Your task to perform on an android device: toggle javascript in the chrome app Image 0: 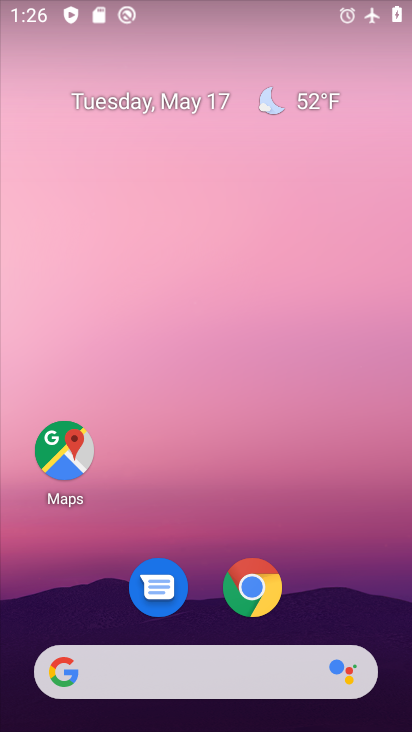
Step 0: click (231, 592)
Your task to perform on an android device: toggle javascript in the chrome app Image 1: 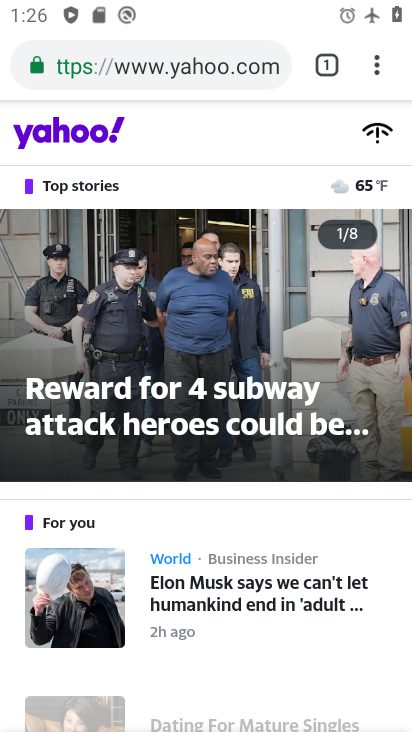
Step 1: click (373, 74)
Your task to perform on an android device: toggle javascript in the chrome app Image 2: 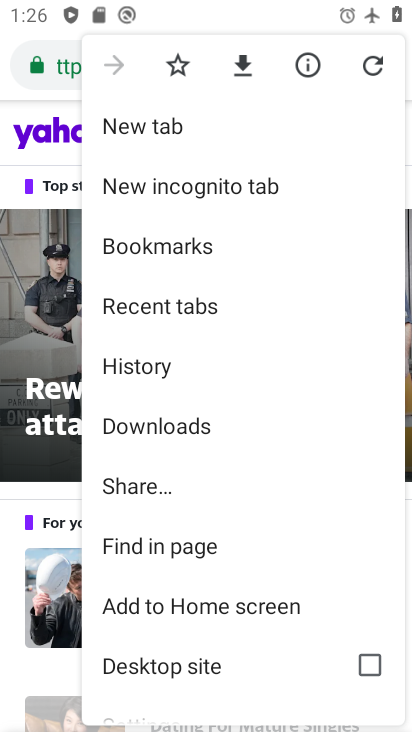
Step 2: drag from (153, 628) to (171, 350)
Your task to perform on an android device: toggle javascript in the chrome app Image 3: 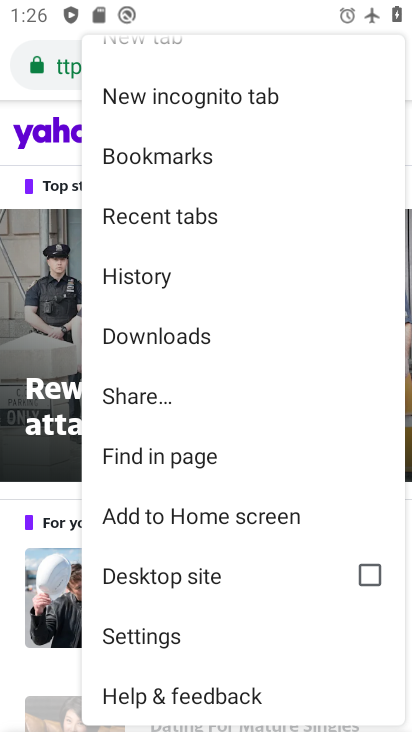
Step 3: click (187, 651)
Your task to perform on an android device: toggle javascript in the chrome app Image 4: 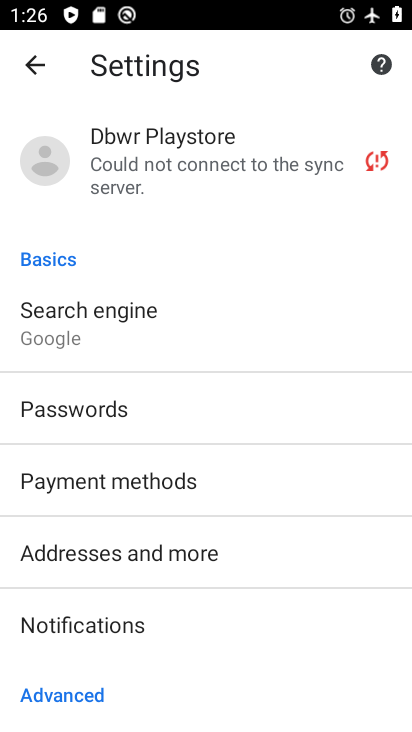
Step 4: drag from (211, 623) to (184, 331)
Your task to perform on an android device: toggle javascript in the chrome app Image 5: 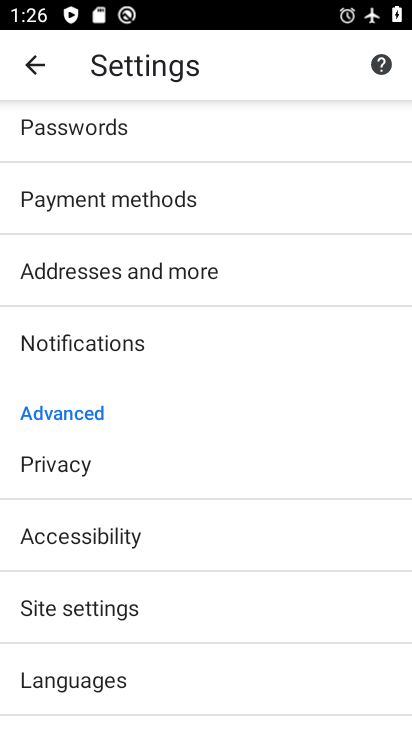
Step 5: click (109, 600)
Your task to perform on an android device: toggle javascript in the chrome app Image 6: 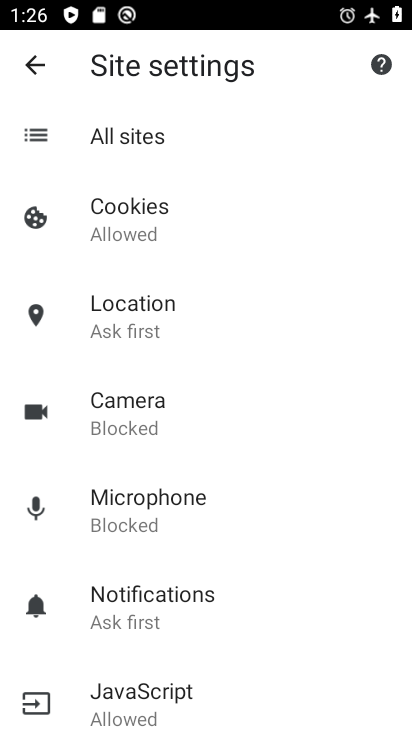
Step 6: click (133, 673)
Your task to perform on an android device: toggle javascript in the chrome app Image 7: 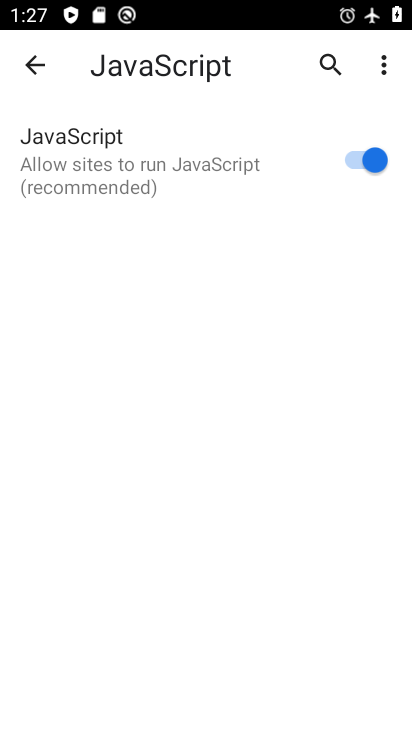
Step 7: click (362, 138)
Your task to perform on an android device: toggle javascript in the chrome app Image 8: 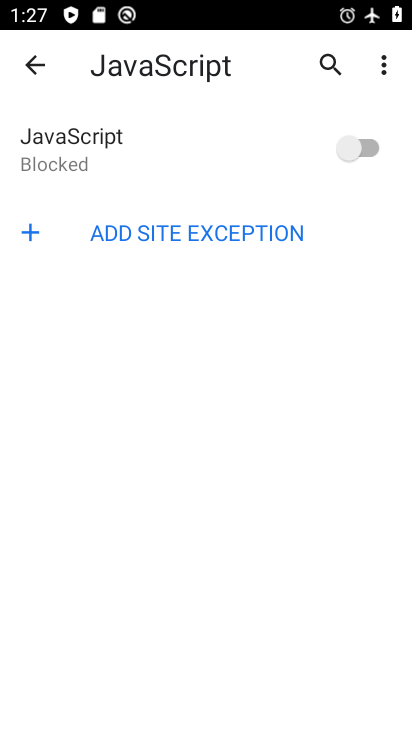
Step 8: task complete